Your task to perform on an android device: What's a good restaurant in Sacramento? Image 0: 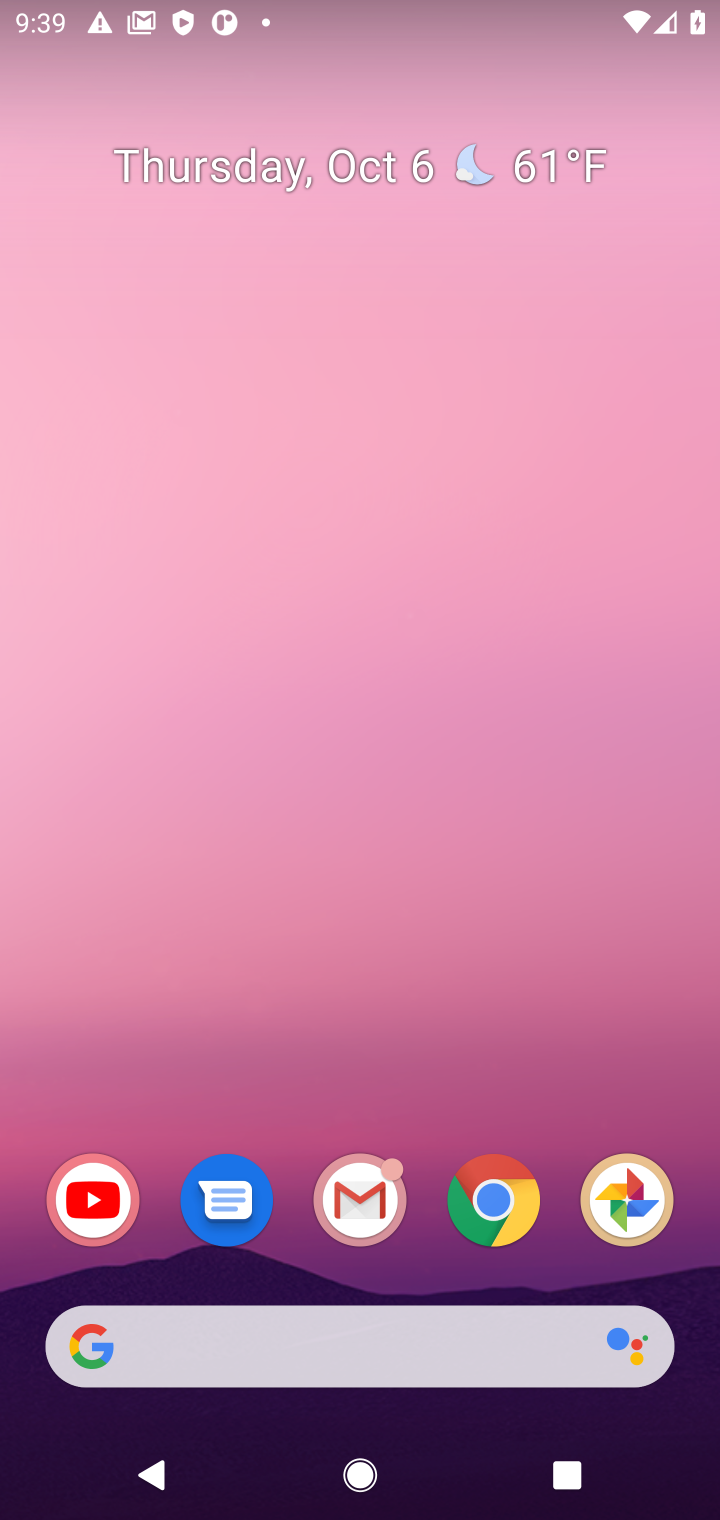
Step 0: drag from (317, 1171) to (351, 383)
Your task to perform on an android device: What's a good restaurant in Sacramento? Image 1: 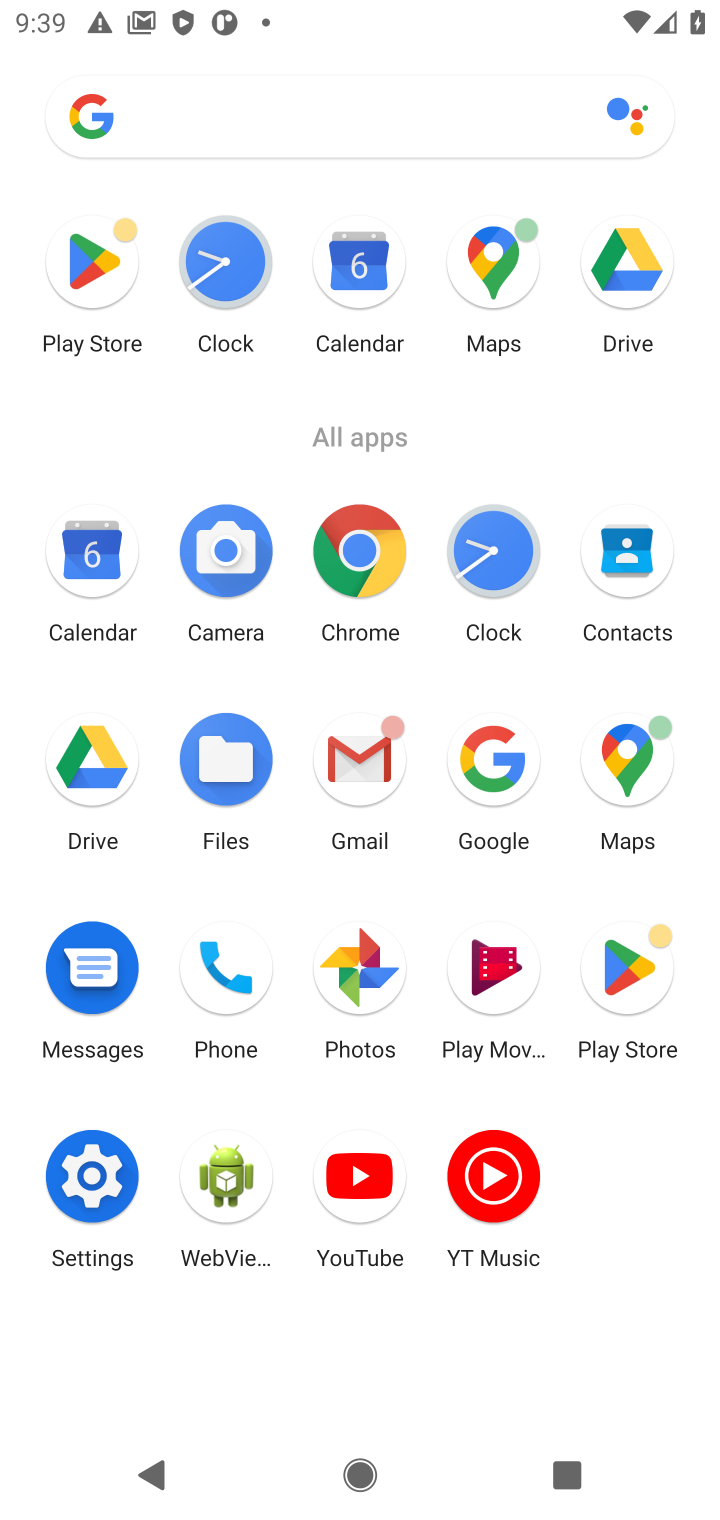
Step 1: click (496, 744)
Your task to perform on an android device: What's a good restaurant in Sacramento? Image 2: 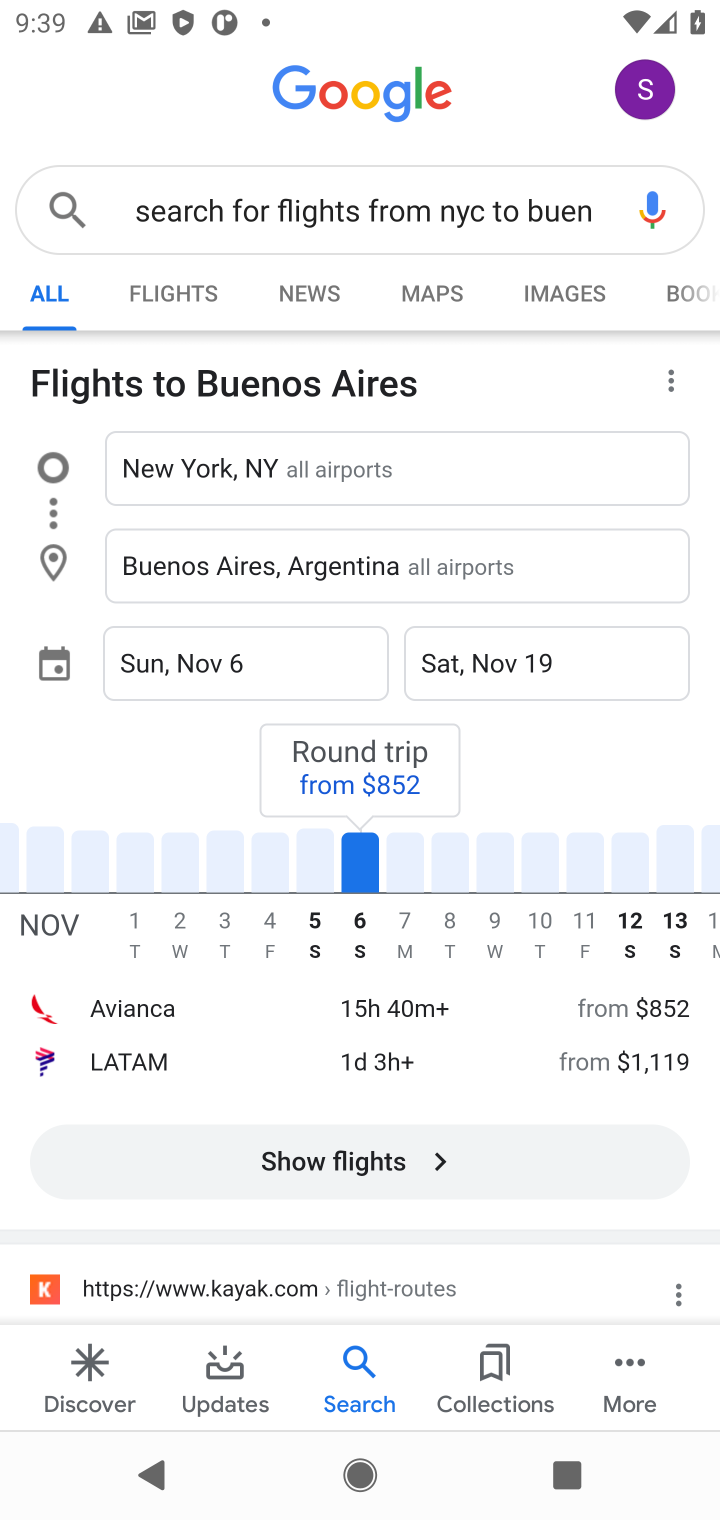
Step 2: click (363, 209)
Your task to perform on an android device: What's a good restaurant in Sacramento? Image 3: 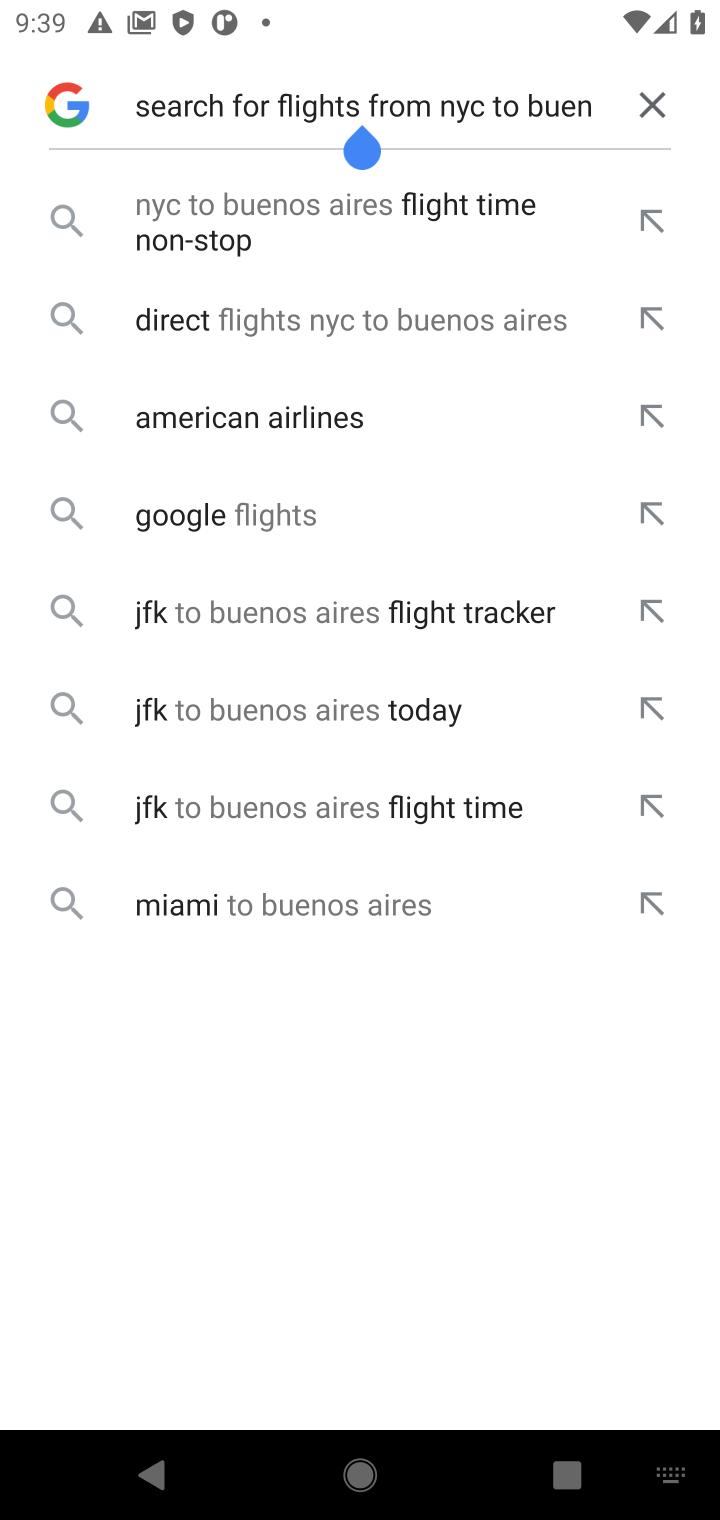
Step 3: click (649, 115)
Your task to perform on an android device: What's a good restaurant in Sacramento? Image 4: 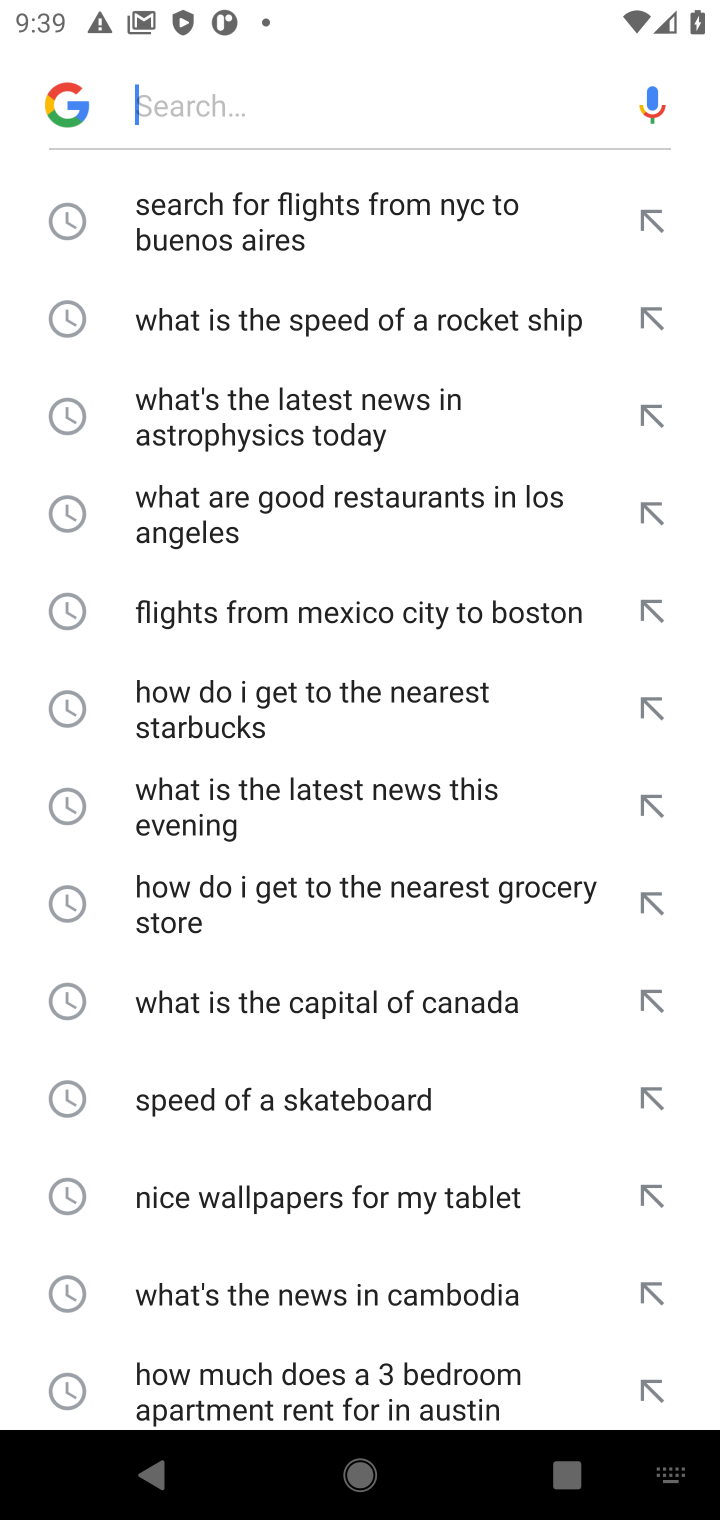
Step 4: type "What's a good restaurant in Sacramento?"
Your task to perform on an android device: What's a good restaurant in Sacramento? Image 5: 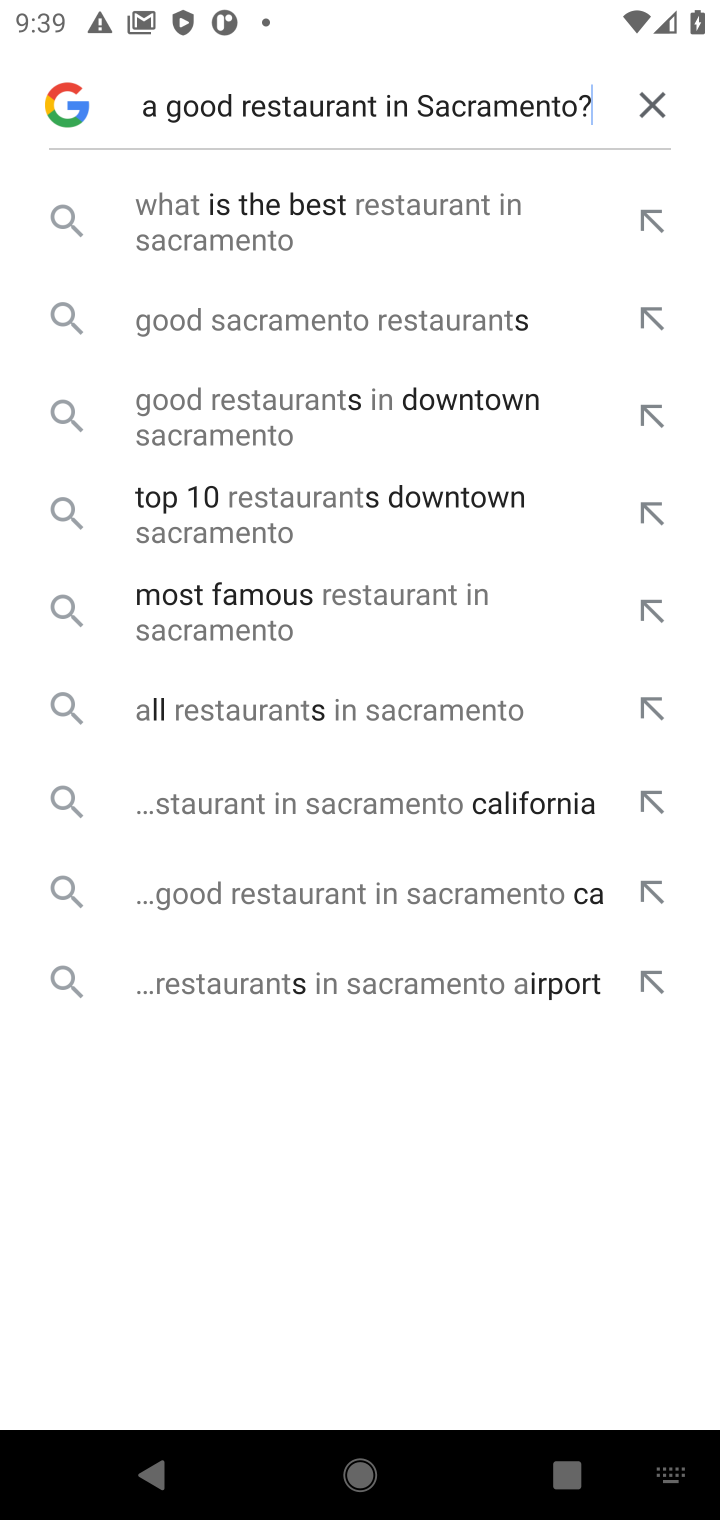
Step 5: click (378, 238)
Your task to perform on an android device: What's a good restaurant in Sacramento? Image 6: 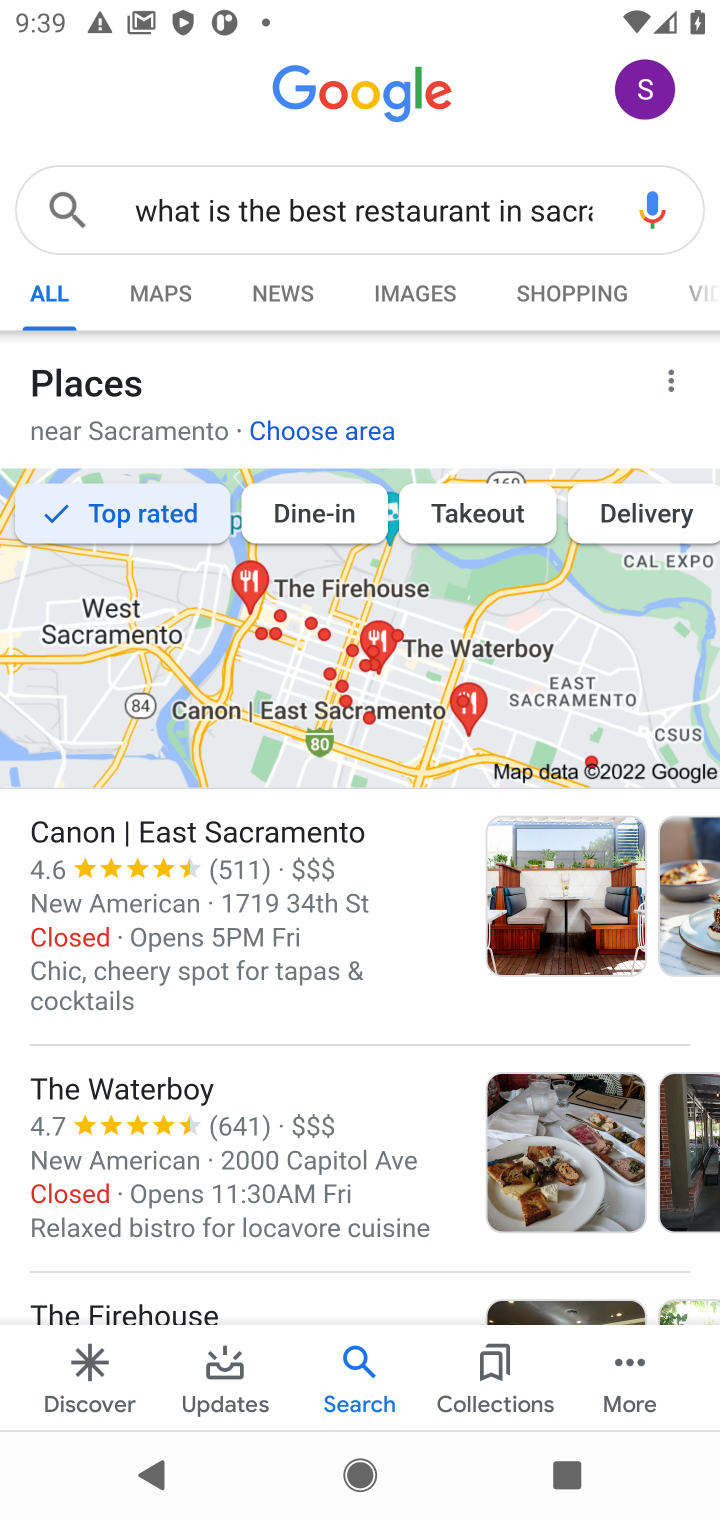
Step 6: task complete